Your task to perform on an android device: Is it going to rain tomorrow? Image 0: 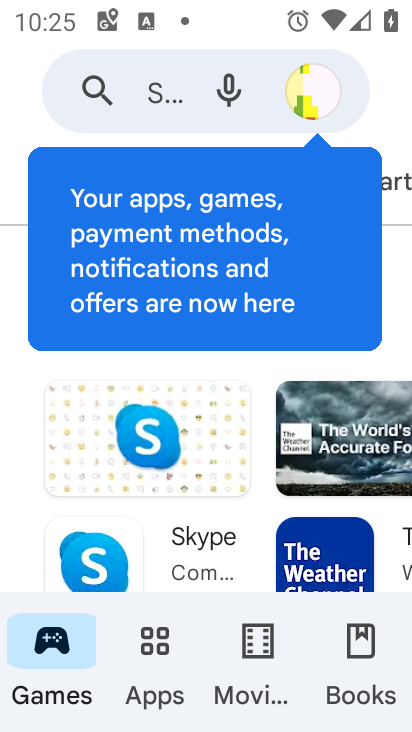
Step 0: press home button
Your task to perform on an android device: Is it going to rain tomorrow? Image 1: 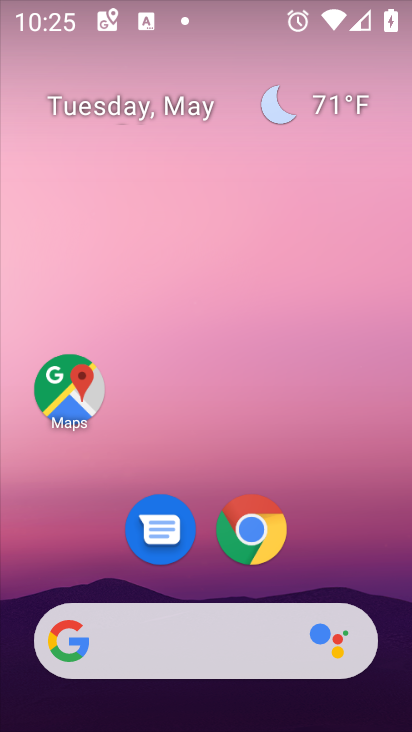
Step 1: drag from (291, 629) to (260, 405)
Your task to perform on an android device: Is it going to rain tomorrow? Image 2: 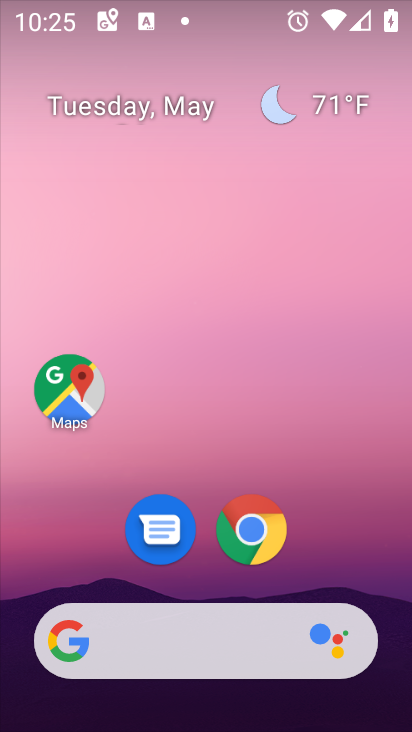
Step 2: drag from (309, 622) to (290, 462)
Your task to perform on an android device: Is it going to rain tomorrow? Image 3: 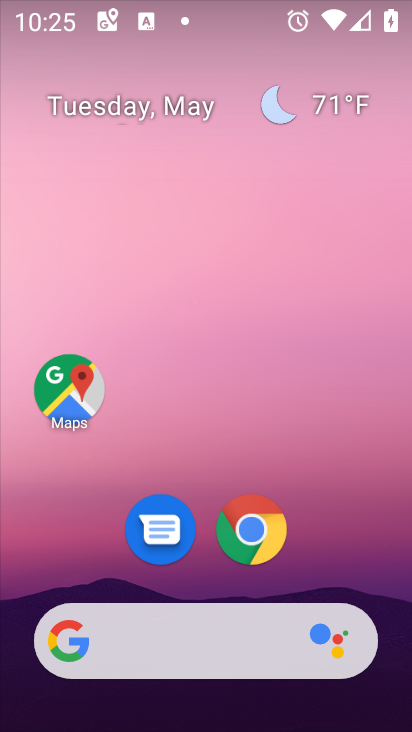
Step 3: drag from (264, 642) to (272, 306)
Your task to perform on an android device: Is it going to rain tomorrow? Image 4: 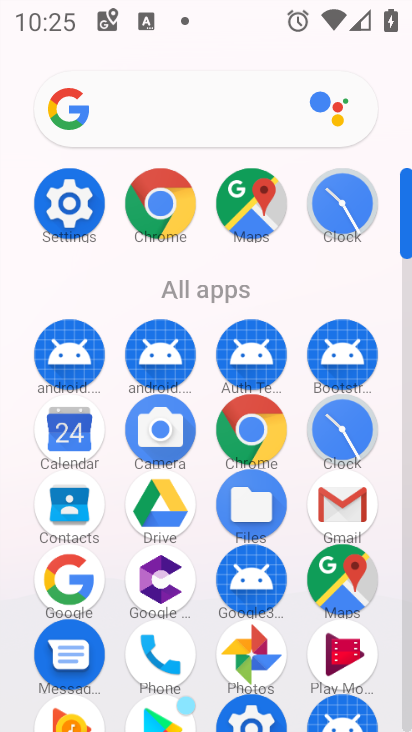
Step 4: click (71, 595)
Your task to perform on an android device: Is it going to rain tomorrow? Image 5: 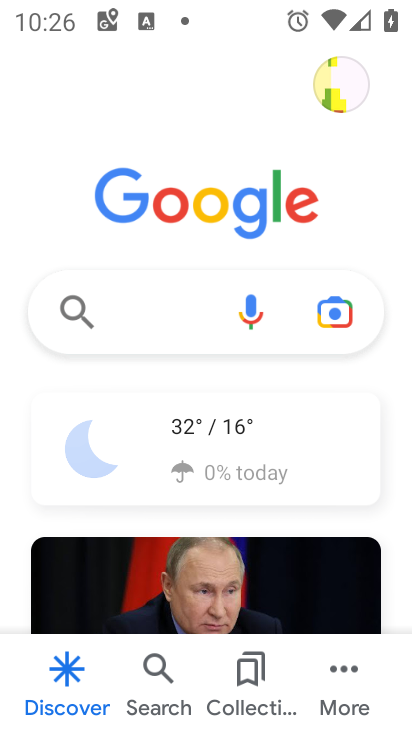
Step 5: click (168, 331)
Your task to perform on an android device: Is it going to rain tomorrow? Image 6: 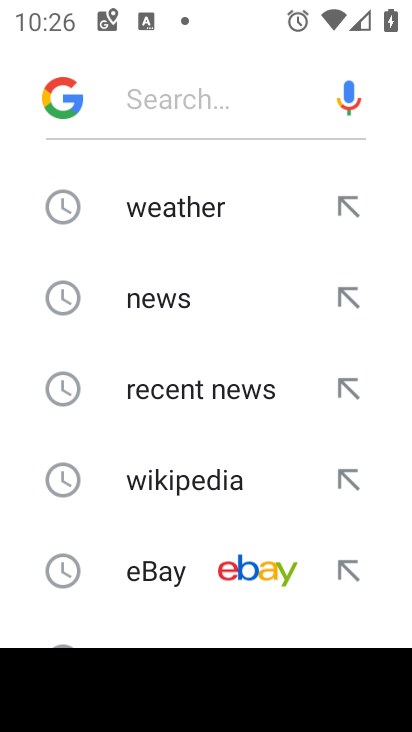
Step 6: click (247, 208)
Your task to perform on an android device: Is it going to rain tomorrow? Image 7: 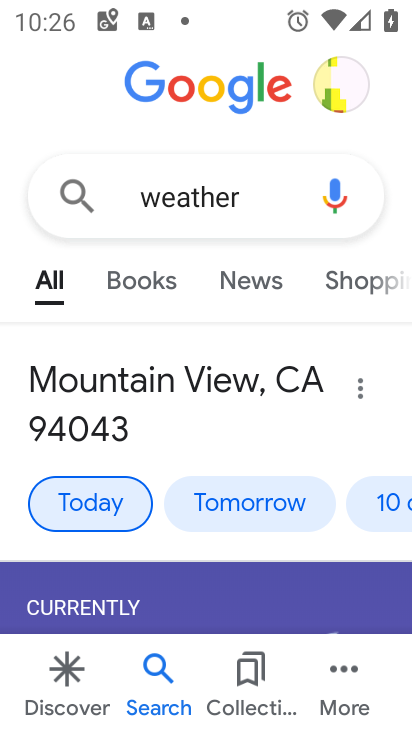
Step 7: click (245, 514)
Your task to perform on an android device: Is it going to rain tomorrow? Image 8: 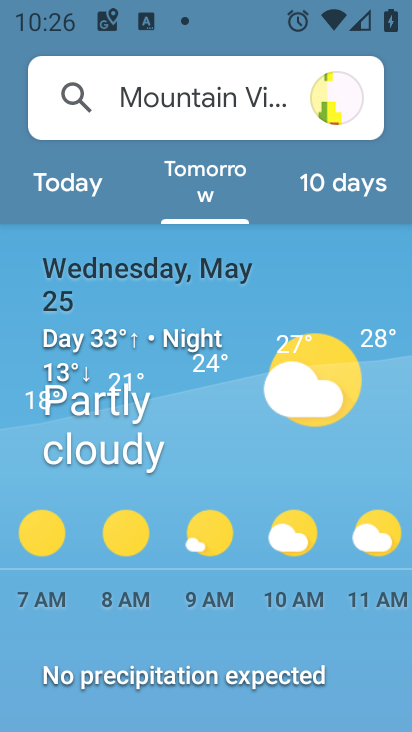
Step 8: task complete